Your task to perform on an android device: toggle javascript in the chrome app Image 0: 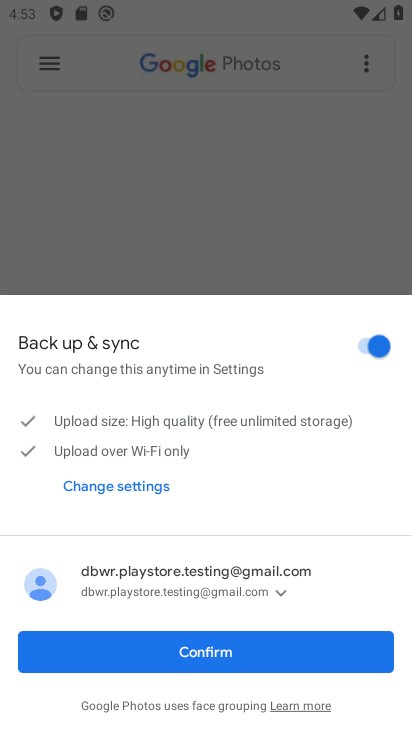
Step 0: press home button
Your task to perform on an android device: toggle javascript in the chrome app Image 1: 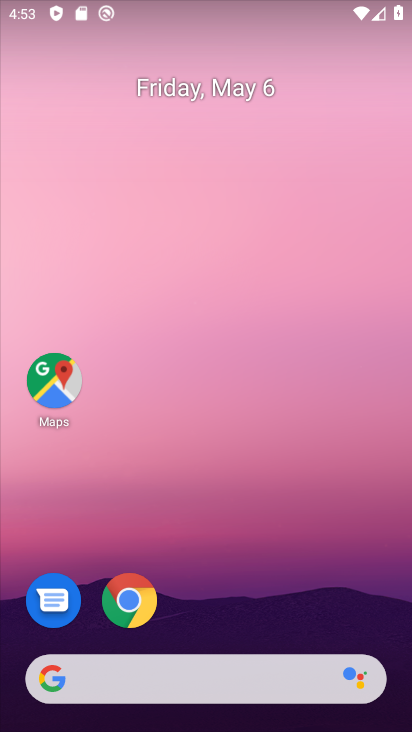
Step 1: drag from (210, 632) to (249, 81)
Your task to perform on an android device: toggle javascript in the chrome app Image 2: 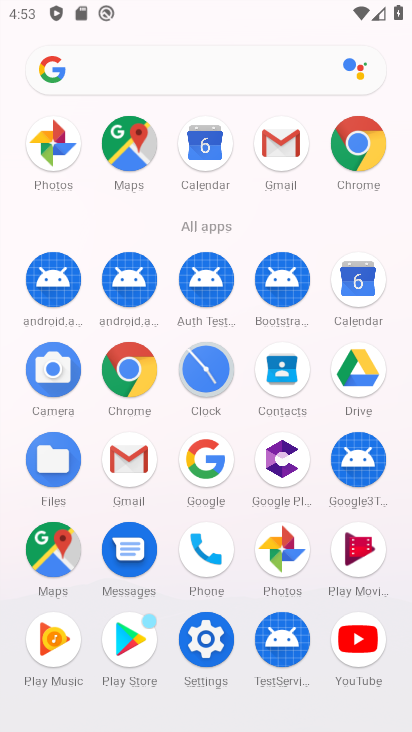
Step 2: click (120, 382)
Your task to perform on an android device: toggle javascript in the chrome app Image 3: 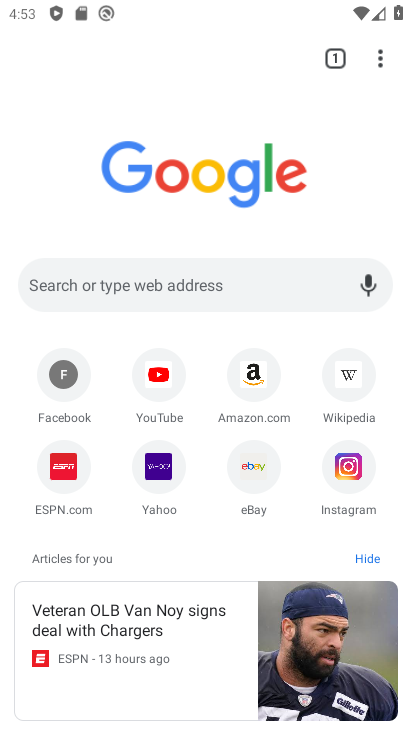
Step 3: click (386, 53)
Your task to perform on an android device: toggle javascript in the chrome app Image 4: 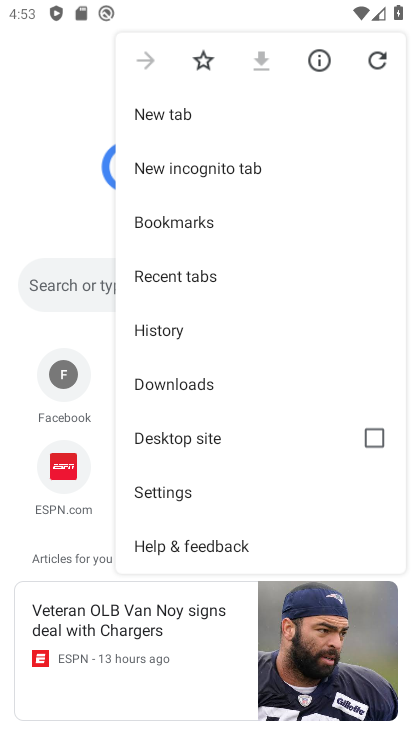
Step 4: click (174, 488)
Your task to perform on an android device: toggle javascript in the chrome app Image 5: 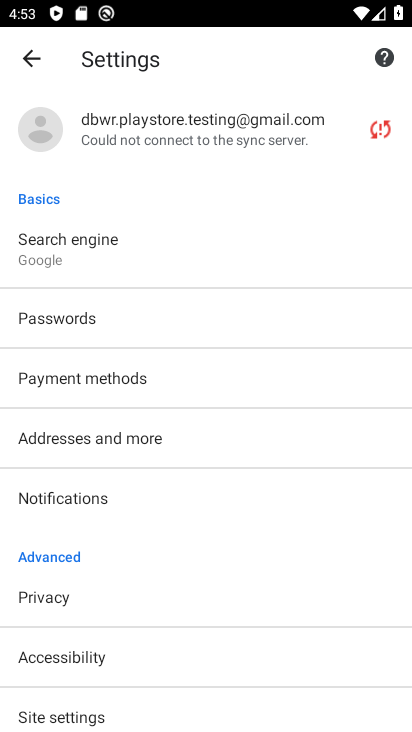
Step 5: click (58, 714)
Your task to perform on an android device: toggle javascript in the chrome app Image 6: 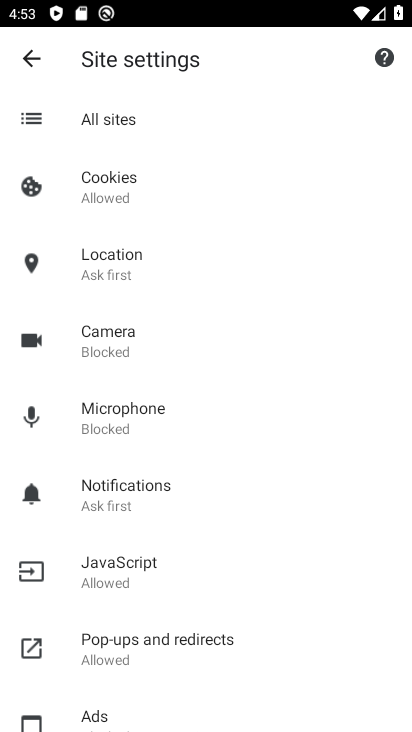
Step 6: click (100, 598)
Your task to perform on an android device: toggle javascript in the chrome app Image 7: 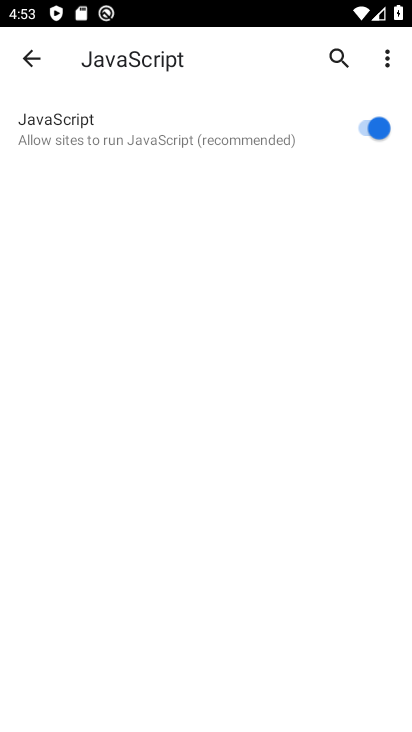
Step 7: click (359, 129)
Your task to perform on an android device: toggle javascript in the chrome app Image 8: 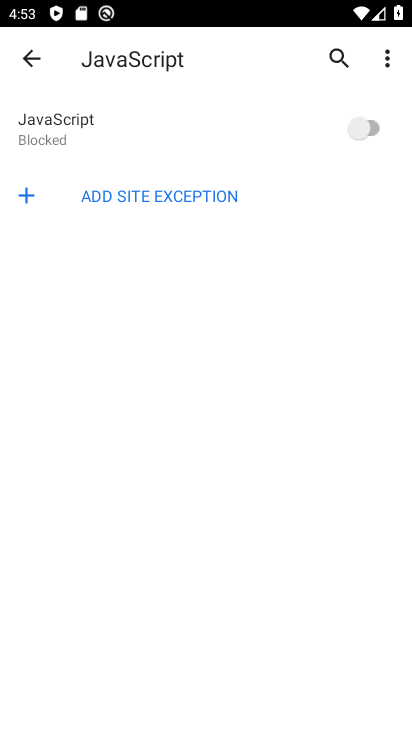
Step 8: task complete